Your task to perform on an android device: set an alarm Image 0: 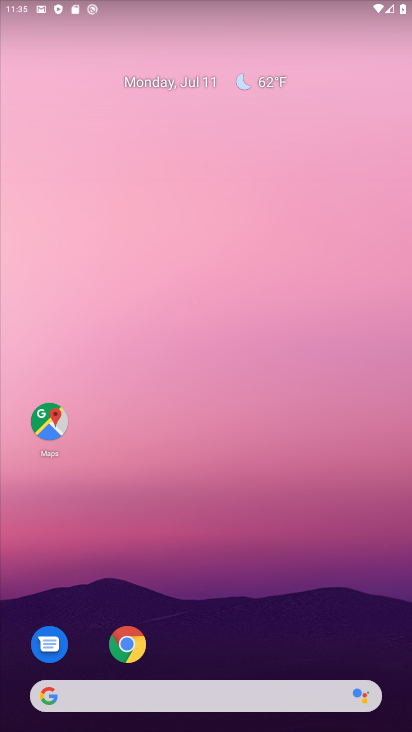
Step 0: drag from (216, 667) to (217, 59)
Your task to perform on an android device: set an alarm Image 1: 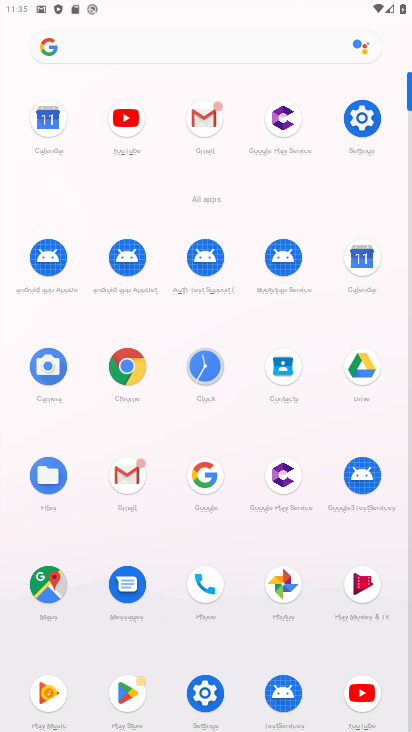
Step 1: click (207, 359)
Your task to perform on an android device: set an alarm Image 2: 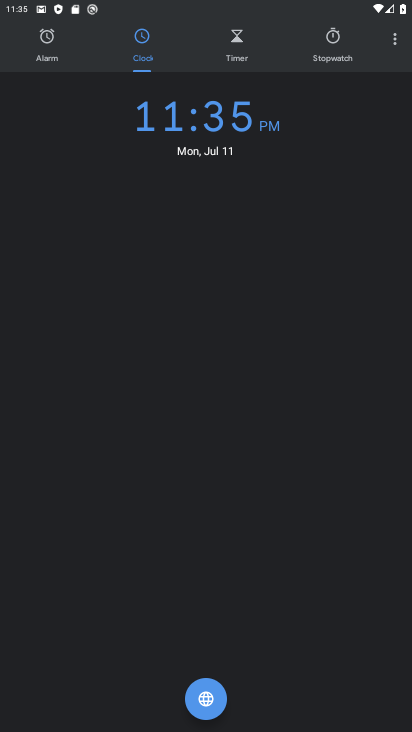
Step 2: click (54, 49)
Your task to perform on an android device: set an alarm Image 3: 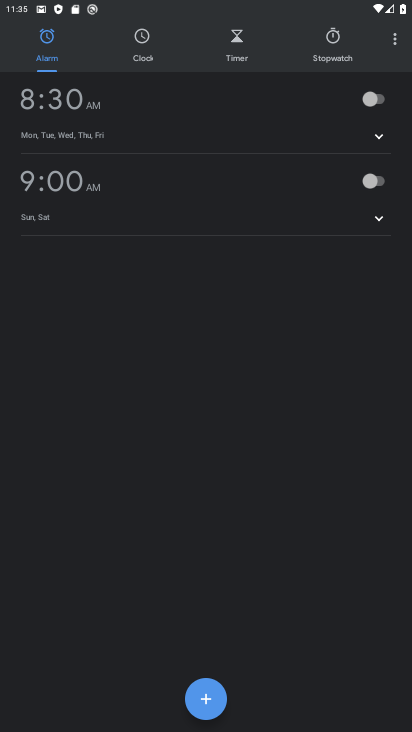
Step 3: click (216, 696)
Your task to perform on an android device: set an alarm Image 4: 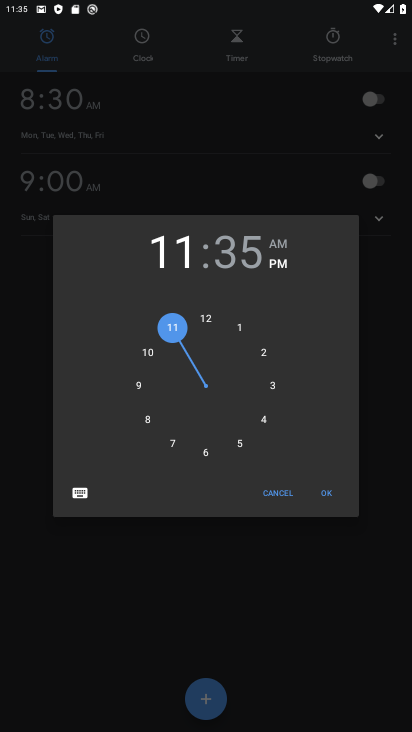
Step 4: click (331, 496)
Your task to perform on an android device: set an alarm Image 5: 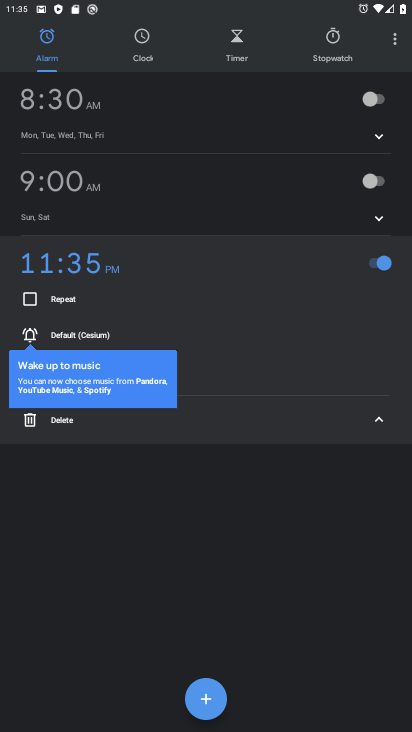
Step 5: task complete